Your task to perform on an android device: Open calendar and show me the third week of next month Image 0: 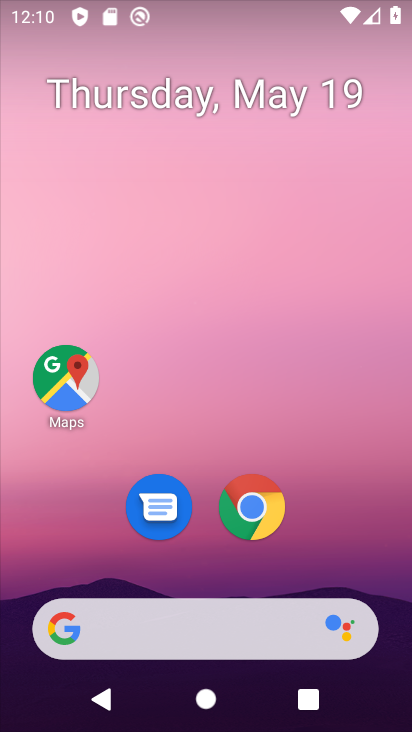
Step 0: drag from (211, 591) to (250, 44)
Your task to perform on an android device: Open calendar and show me the third week of next month Image 1: 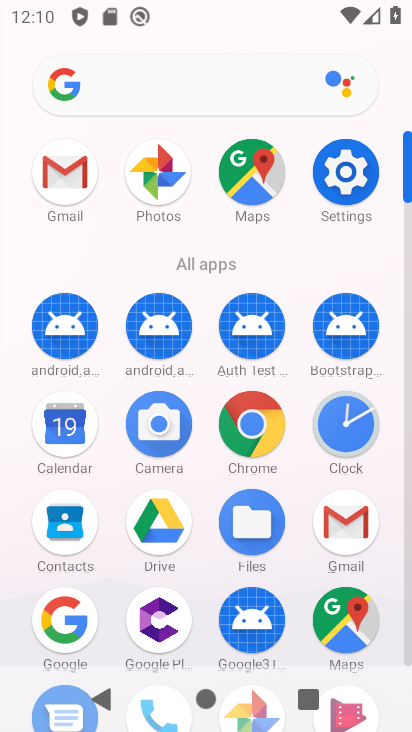
Step 1: click (56, 448)
Your task to perform on an android device: Open calendar and show me the third week of next month Image 2: 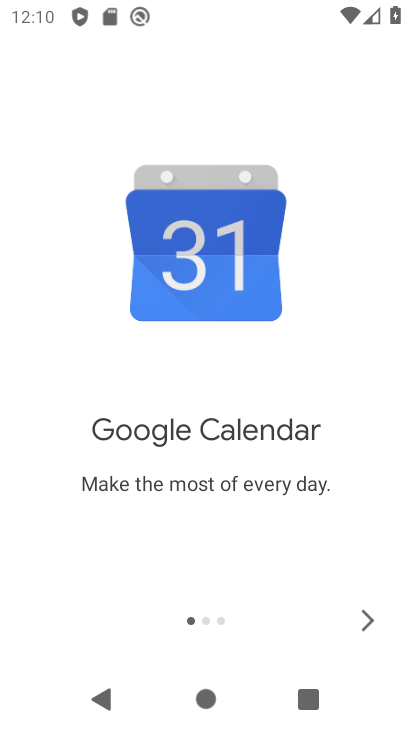
Step 2: click (360, 626)
Your task to perform on an android device: Open calendar and show me the third week of next month Image 3: 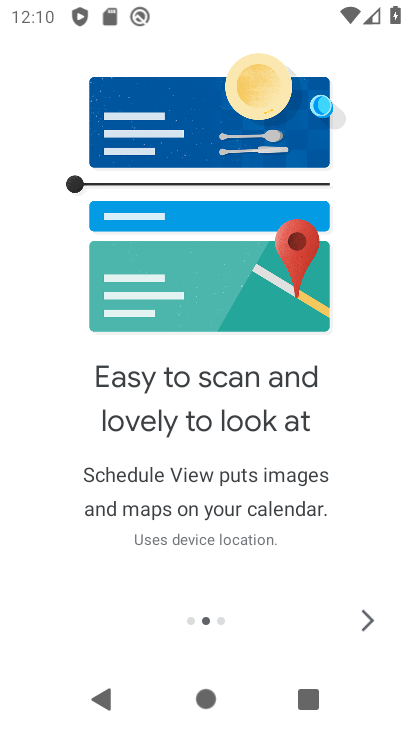
Step 3: click (360, 626)
Your task to perform on an android device: Open calendar and show me the third week of next month Image 4: 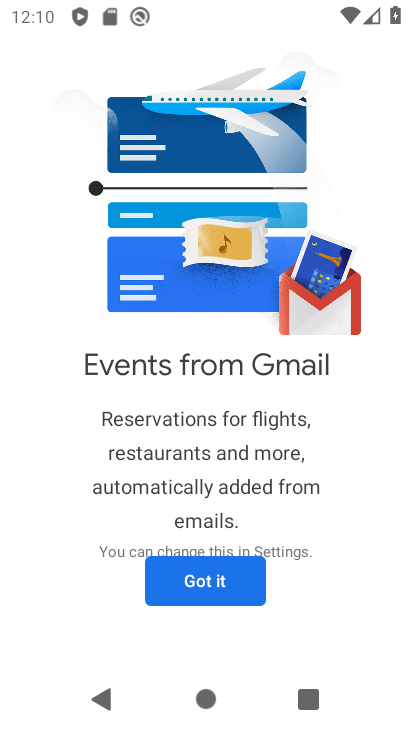
Step 4: click (212, 575)
Your task to perform on an android device: Open calendar and show me the third week of next month Image 5: 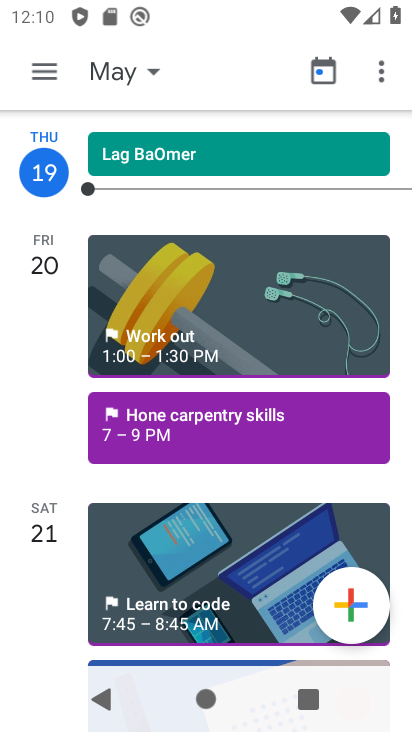
Step 5: click (52, 73)
Your task to perform on an android device: Open calendar and show me the third week of next month Image 6: 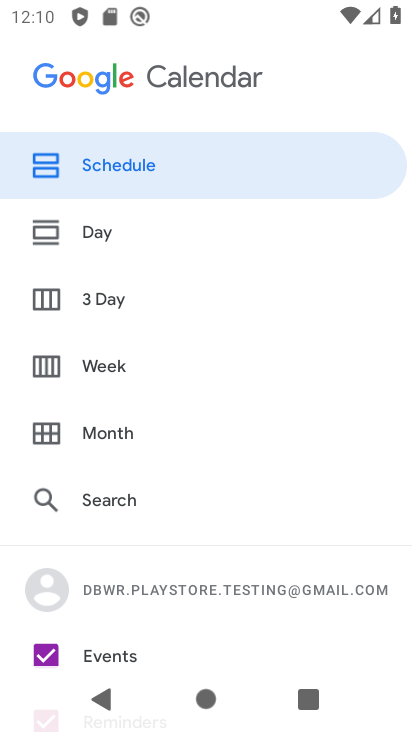
Step 6: drag from (67, 542) to (81, 309)
Your task to perform on an android device: Open calendar and show me the third week of next month Image 7: 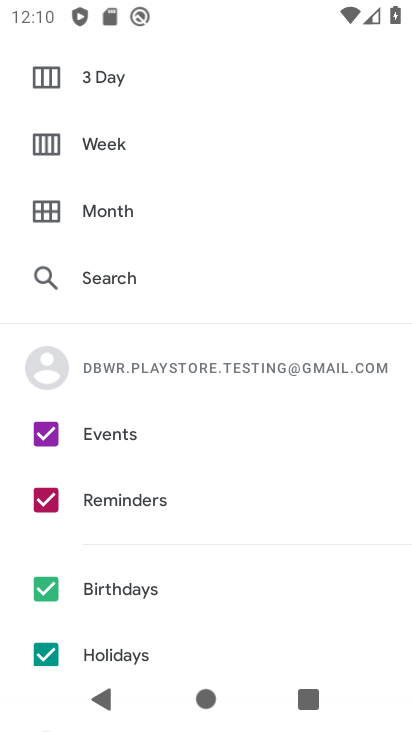
Step 7: click (80, 148)
Your task to perform on an android device: Open calendar and show me the third week of next month Image 8: 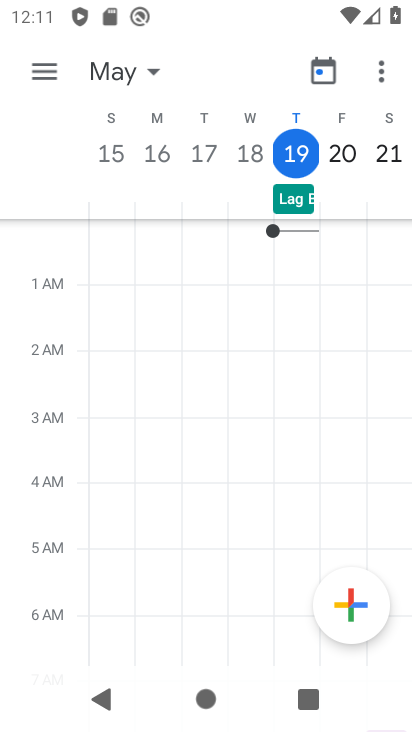
Step 8: task complete